Your task to perform on an android device: What's the weather? Image 0: 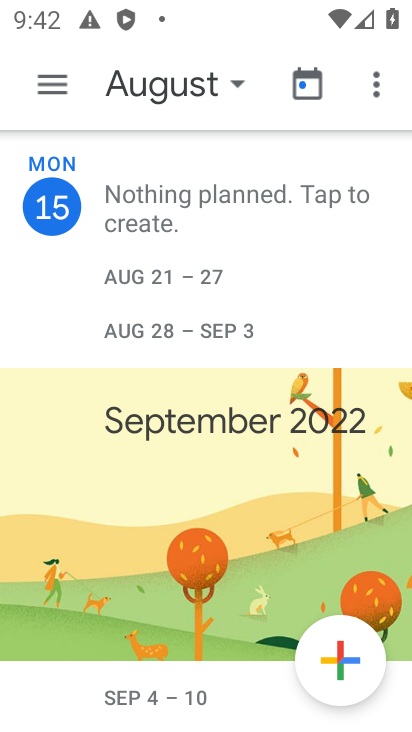
Step 0: press home button
Your task to perform on an android device: What's the weather? Image 1: 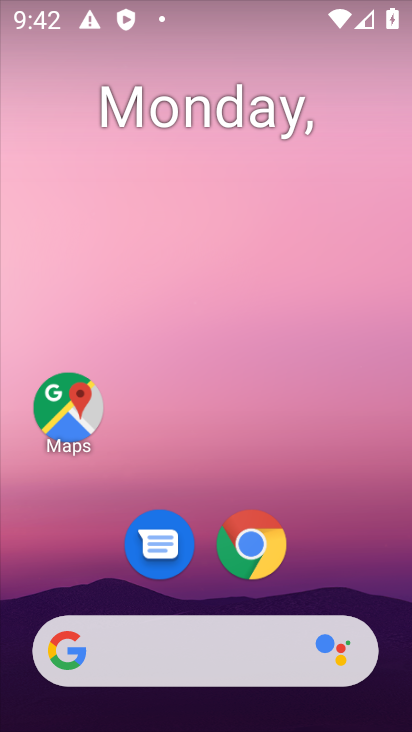
Step 1: click (246, 559)
Your task to perform on an android device: What's the weather? Image 2: 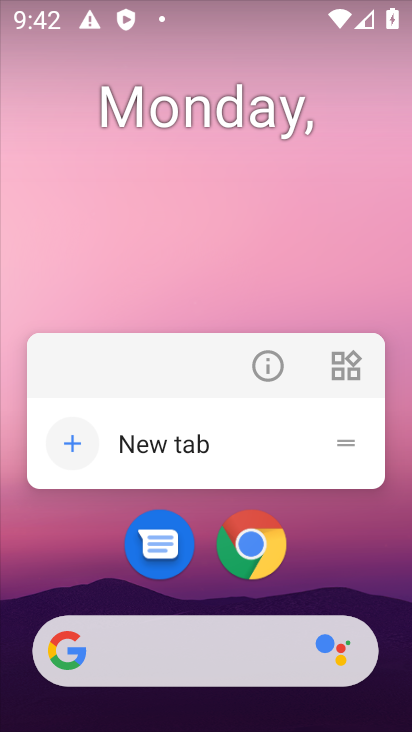
Step 2: click (271, 576)
Your task to perform on an android device: What's the weather? Image 3: 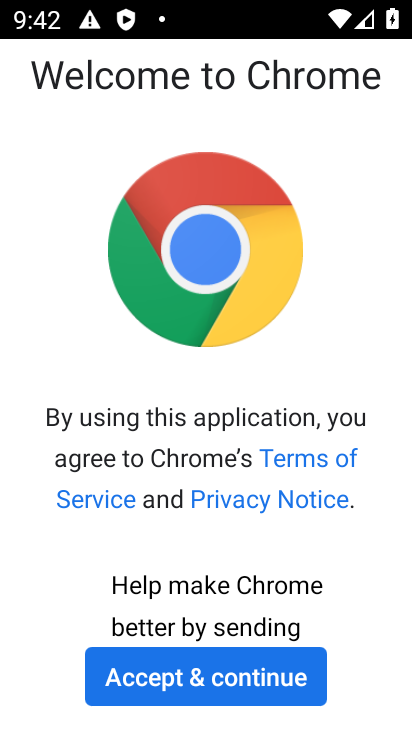
Step 3: click (278, 677)
Your task to perform on an android device: What's the weather? Image 4: 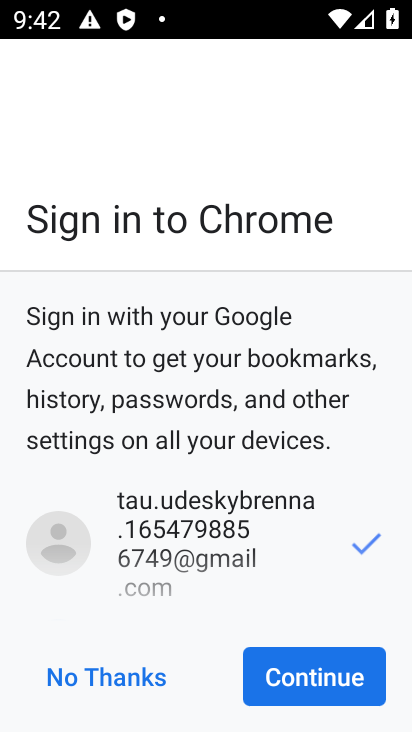
Step 4: click (312, 677)
Your task to perform on an android device: What's the weather? Image 5: 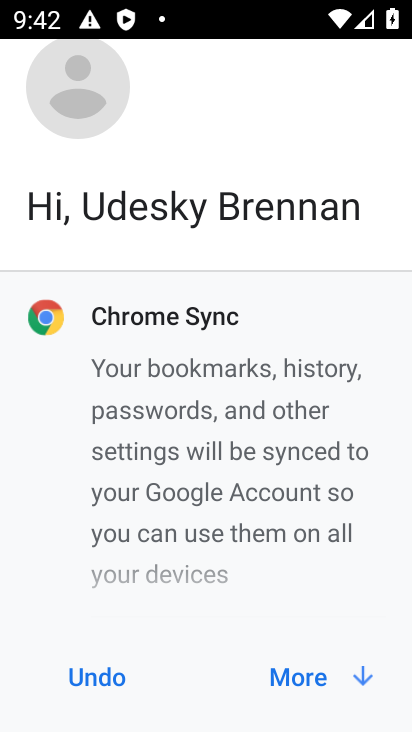
Step 5: click (312, 677)
Your task to perform on an android device: What's the weather? Image 6: 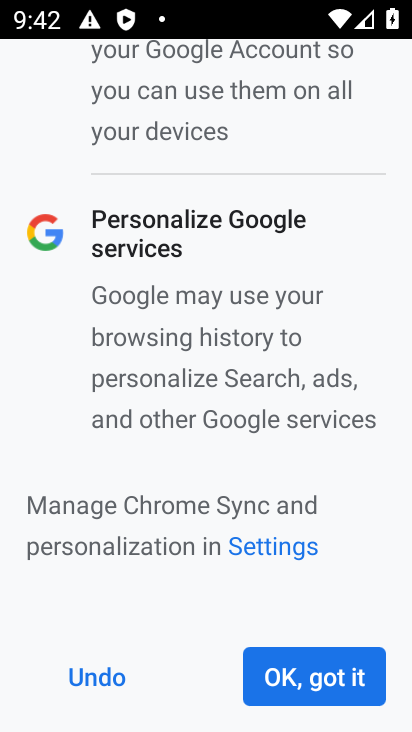
Step 6: click (312, 677)
Your task to perform on an android device: What's the weather? Image 7: 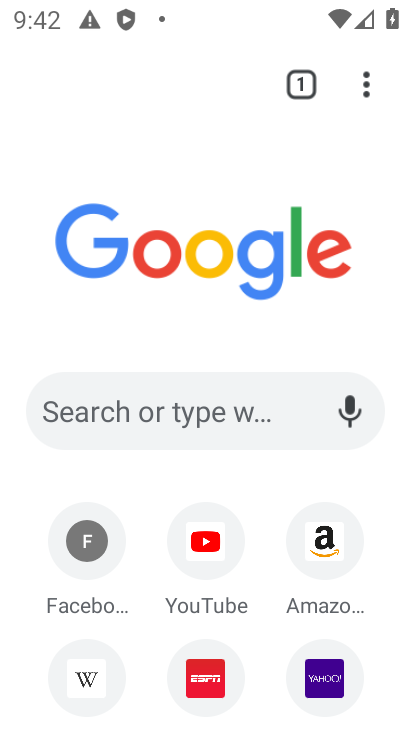
Step 7: click (240, 408)
Your task to perform on an android device: What's the weather? Image 8: 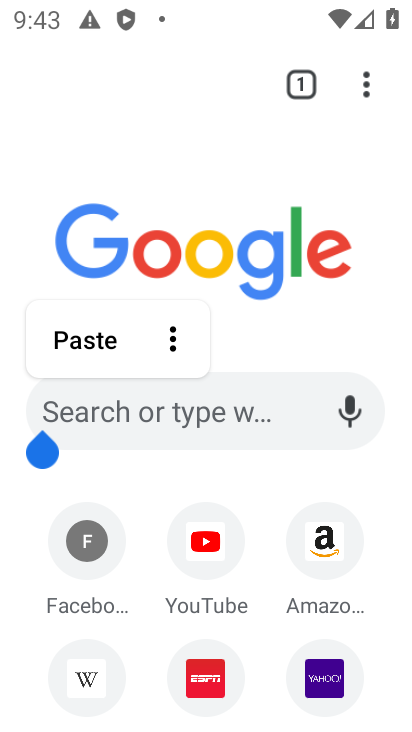
Step 8: click (273, 419)
Your task to perform on an android device: What's the weather? Image 9: 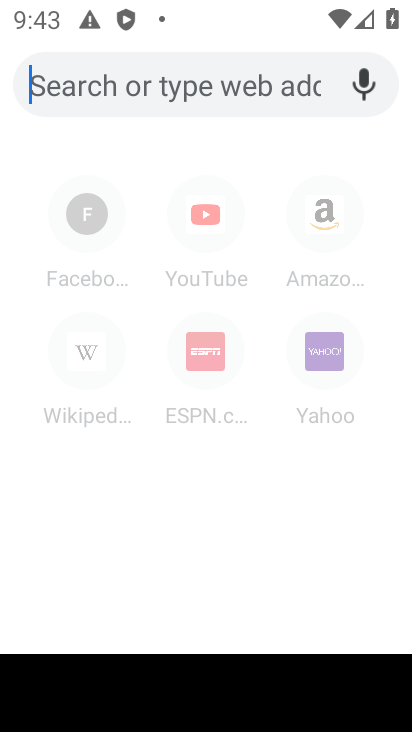
Step 9: type "weather"
Your task to perform on an android device: What's the weather? Image 10: 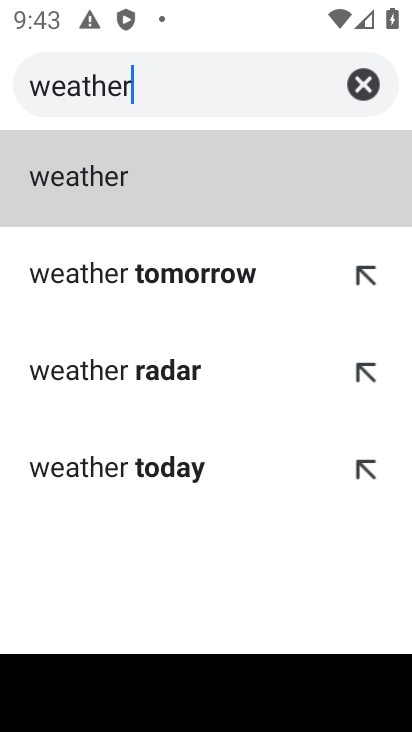
Step 10: click (250, 192)
Your task to perform on an android device: What's the weather? Image 11: 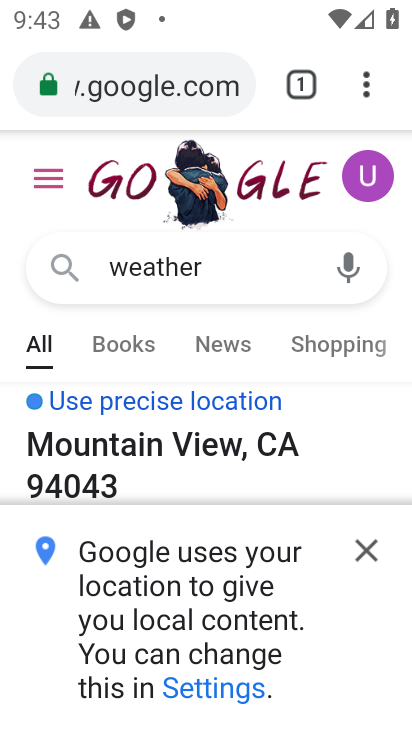
Step 11: task complete